Your task to perform on an android device: set the timer Image 0: 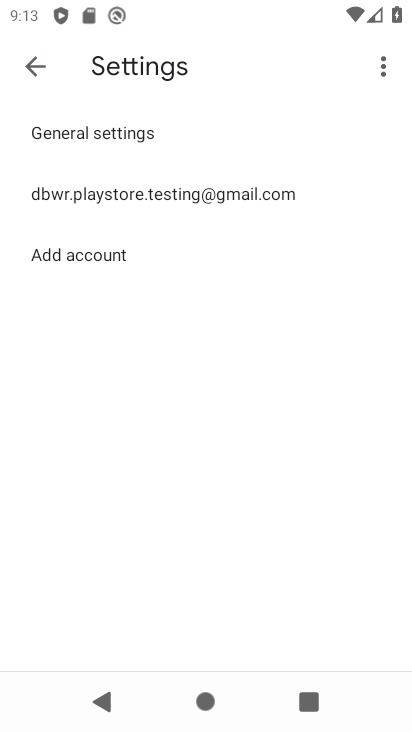
Step 0: press home button
Your task to perform on an android device: set the timer Image 1: 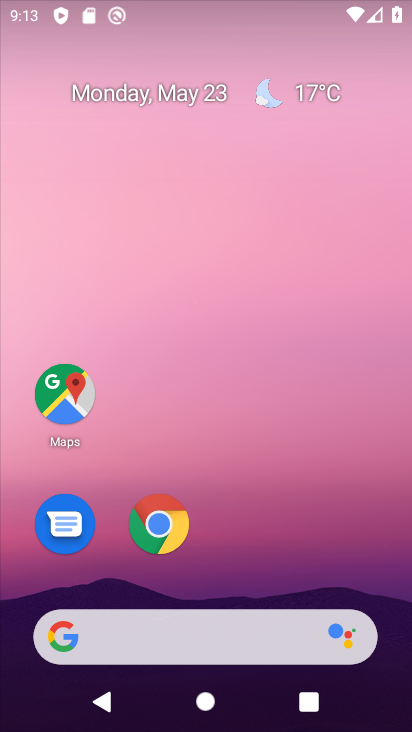
Step 1: drag from (240, 556) to (270, 164)
Your task to perform on an android device: set the timer Image 2: 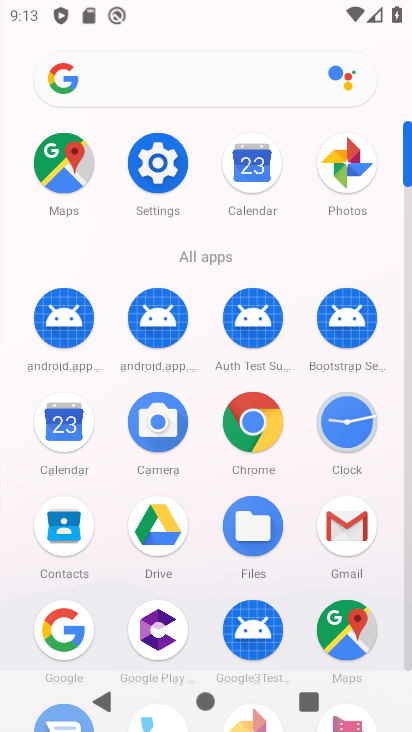
Step 2: click (318, 433)
Your task to perform on an android device: set the timer Image 3: 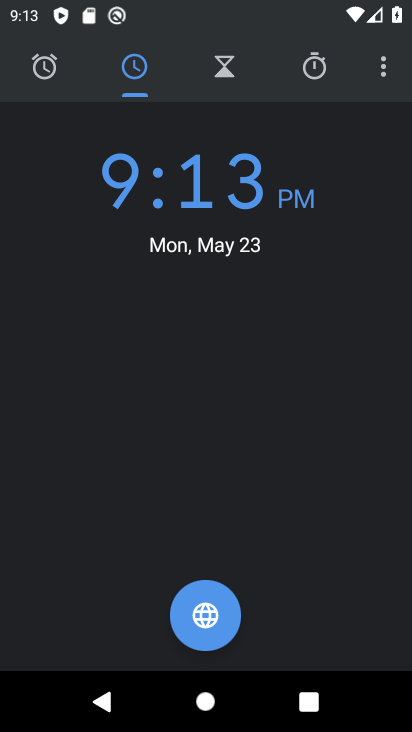
Step 3: click (253, 63)
Your task to perform on an android device: set the timer Image 4: 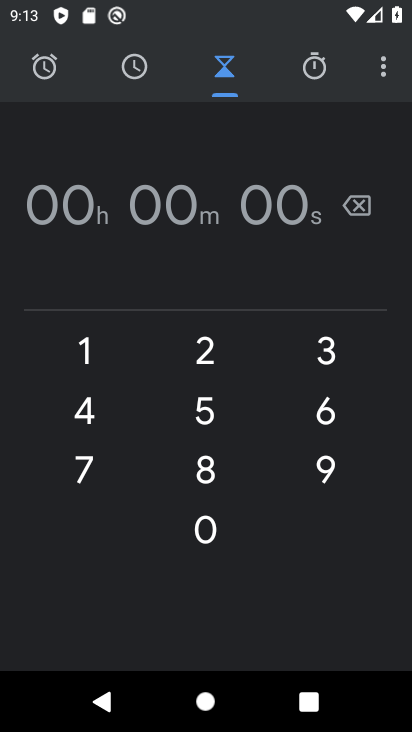
Step 4: click (297, 192)
Your task to perform on an android device: set the timer Image 5: 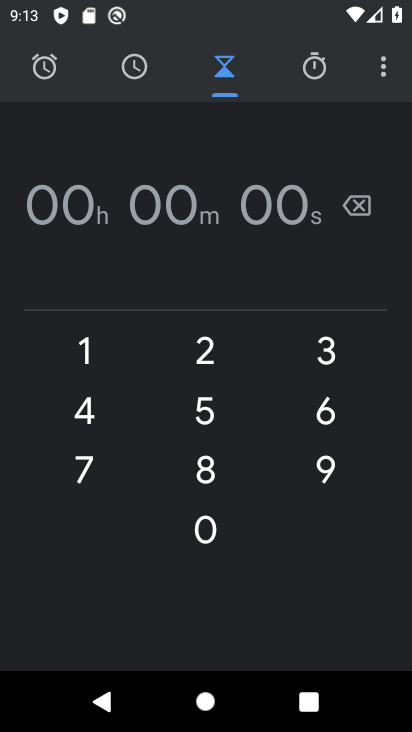
Step 5: type "22"
Your task to perform on an android device: set the timer Image 6: 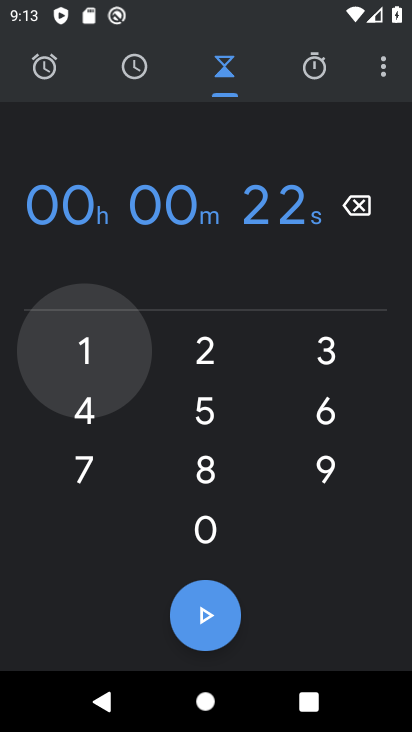
Step 6: click (229, 613)
Your task to perform on an android device: set the timer Image 7: 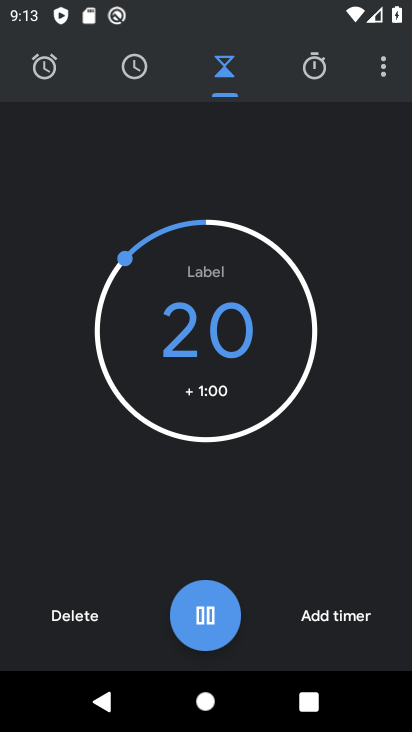
Step 7: task complete